Your task to perform on an android device: View the shopping cart on newegg.com. Add sony triple a to the cart on newegg.com Image 0: 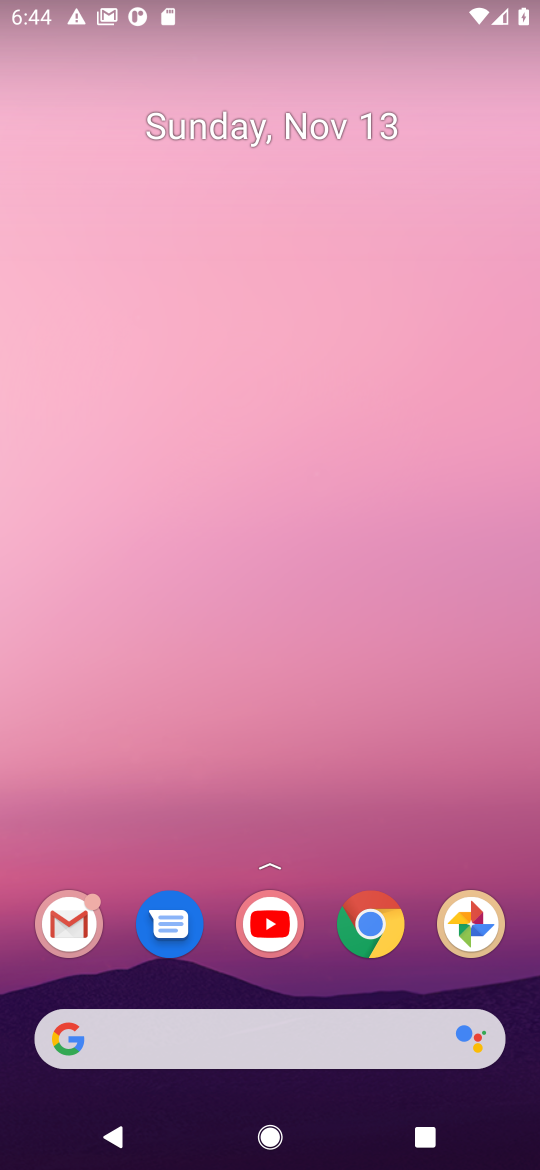
Step 0: click (362, 929)
Your task to perform on an android device: View the shopping cart on newegg.com. Add sony triple a to the cart on newegg.com Image 1: 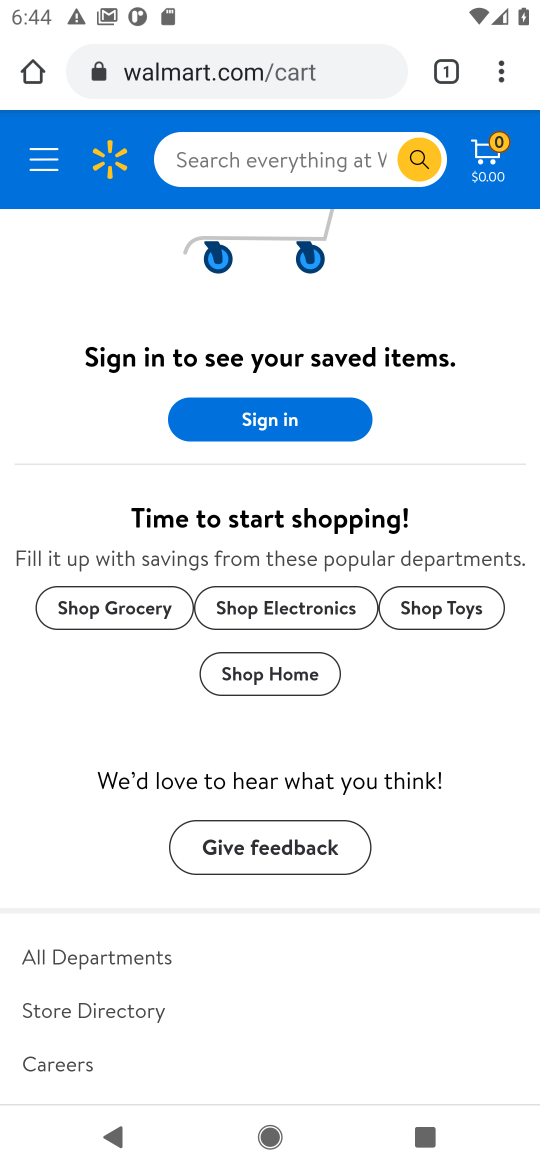
Step 1: click (253, 75)
Your task to perform on an android device: View the shopping cart on newegg.com. Add sony triple a to the cart on newegg.com Image 2: 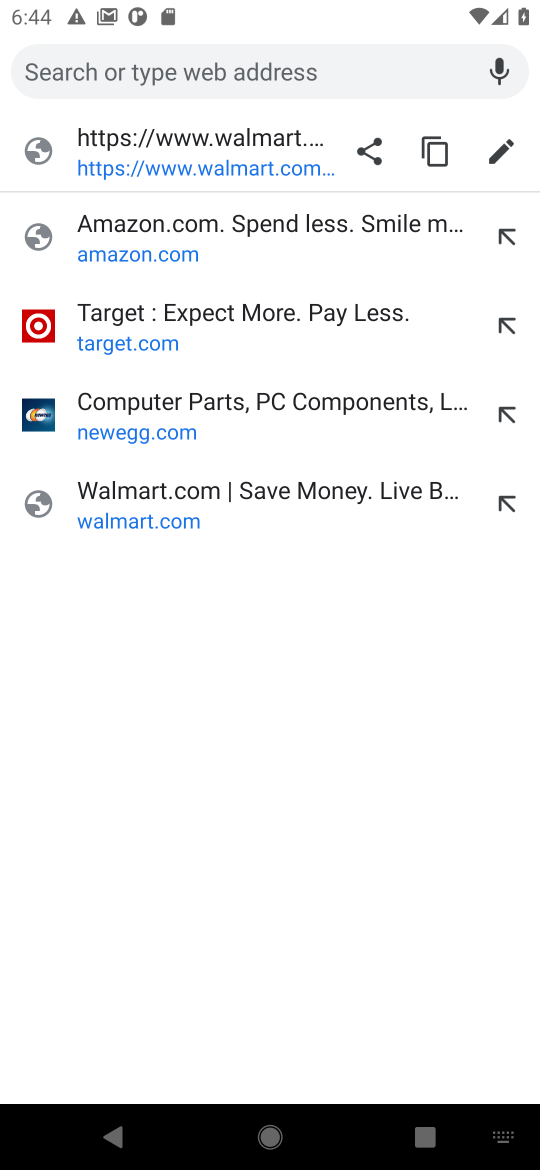
Step 2: click (96, 418)
Your task to perform on an android device: View the shopping cart on newegg.com. Add sony triple a to the cart on newegg.com Image 3: 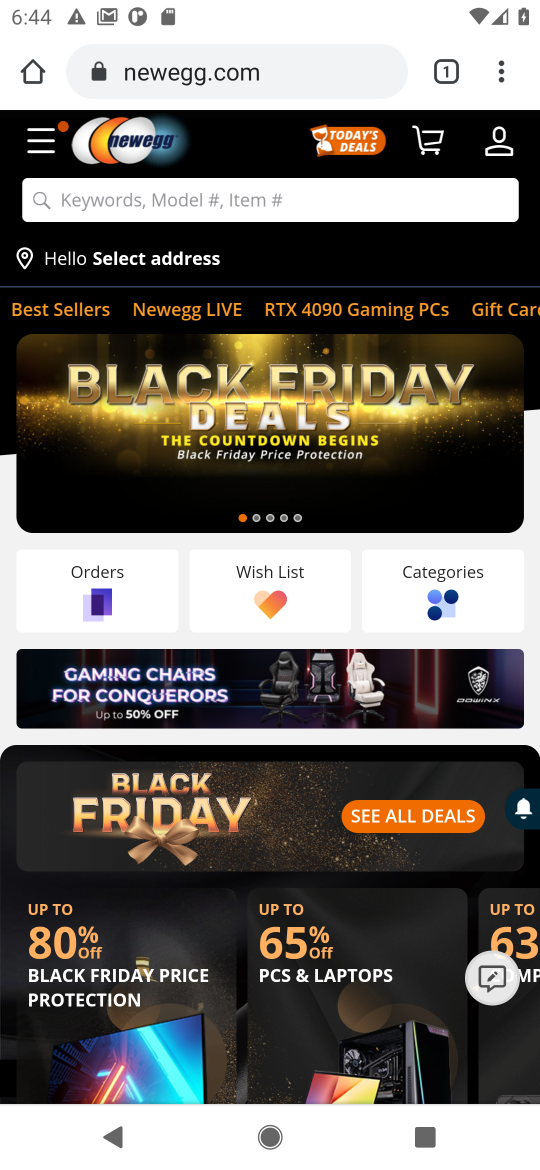
Step 3: click (432, 139)
Your task to perform on an android device: View the shopping cart on newegg.com. Add sony triple a to the cart on newegg.com Image 4: 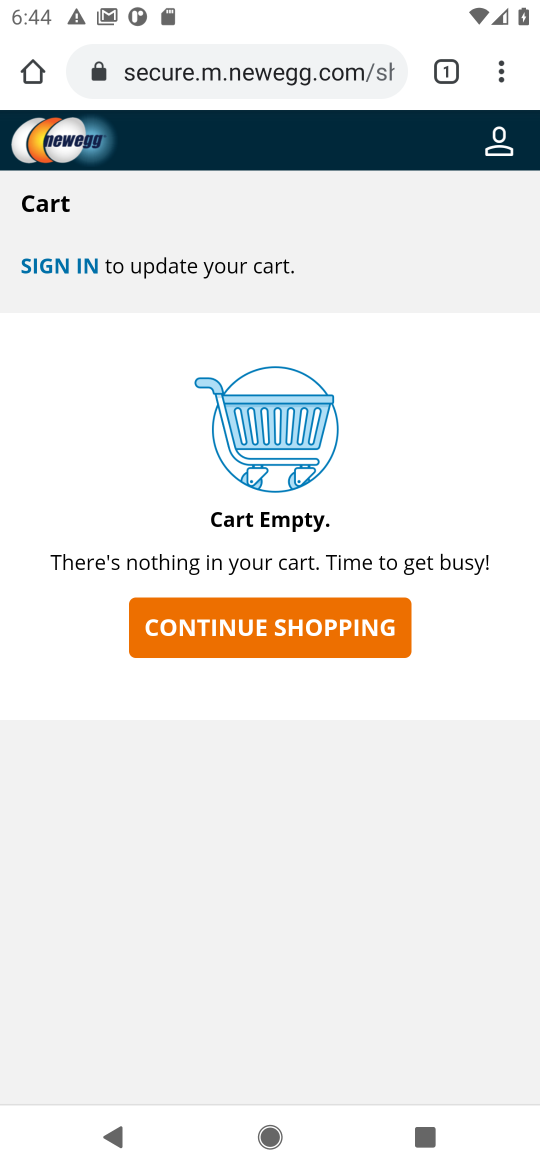
Step 4: click (289, 631)
Your task to perform on an android device: View the shopping cart on newegg.com. Add sony triple a to the cart on newegg.com Image 5: 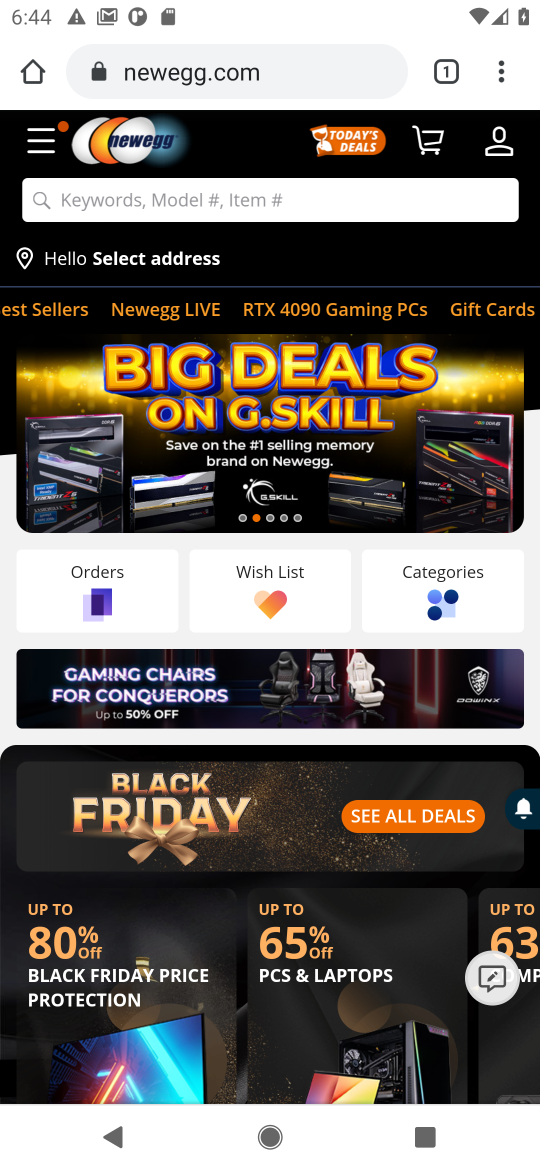
Step 5: click (246, 204)
Your task to perform on an android device: View the shopping cart on newegg.com. Add sony triple a to the cart on newegg.com Image 6: 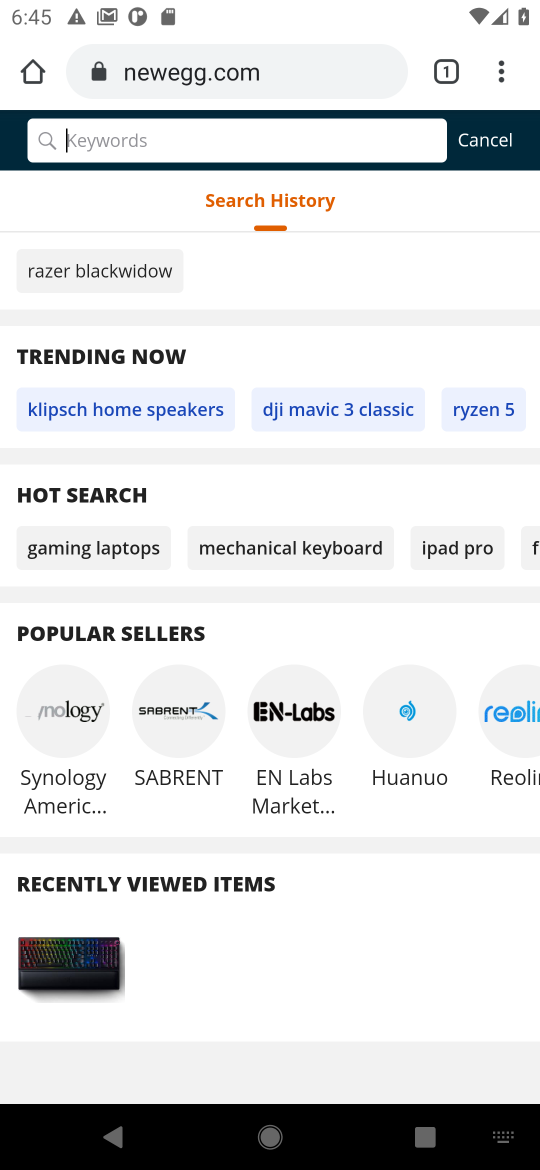
Step 6: type "sony triple a "
Your task to perform on an android device: View the shopping cart on newegg.com. Add sony triple a to the cart on newegg.com Image 7: 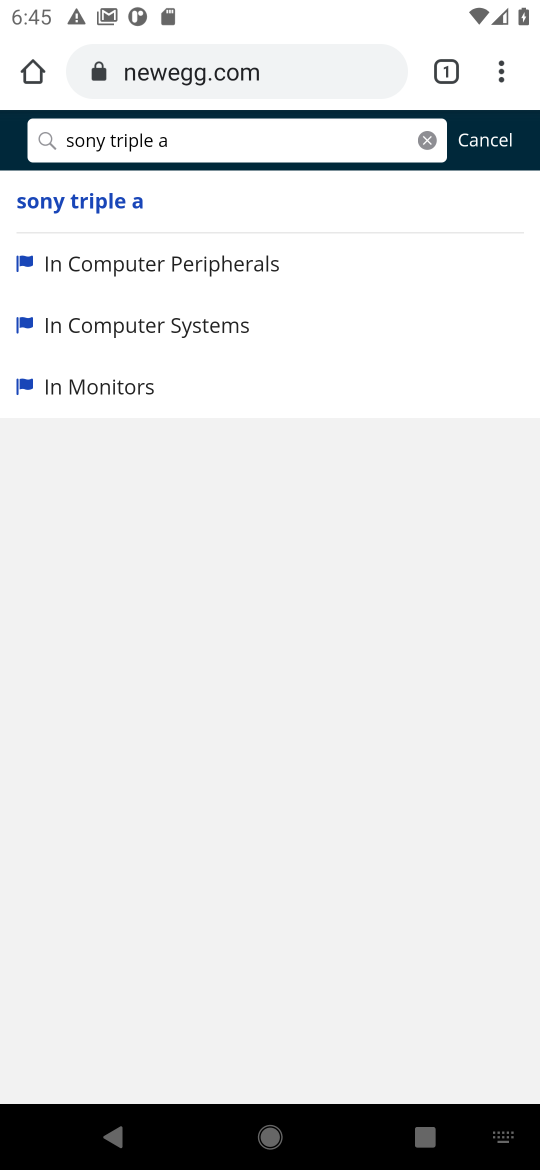
Step 7: click (64, 192)
Your task to perform on an android device: View the shopping cart on newegg.com. Add sony triple a to the cart on newegg.com Image 8: 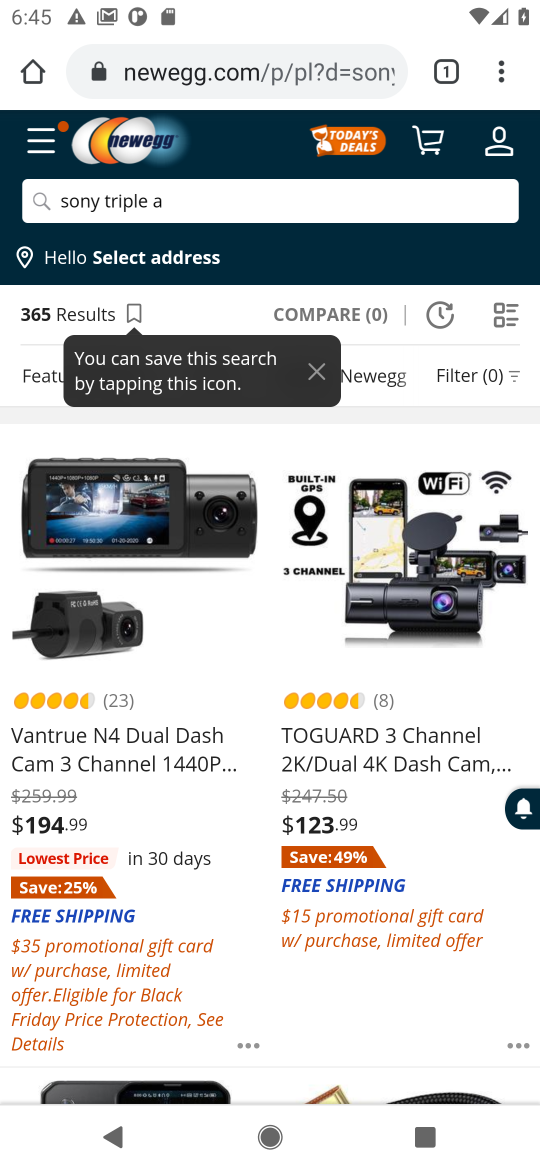
Step 8: task complete